Your task to perform on an android device: Open settings on Google Maps Image 0: 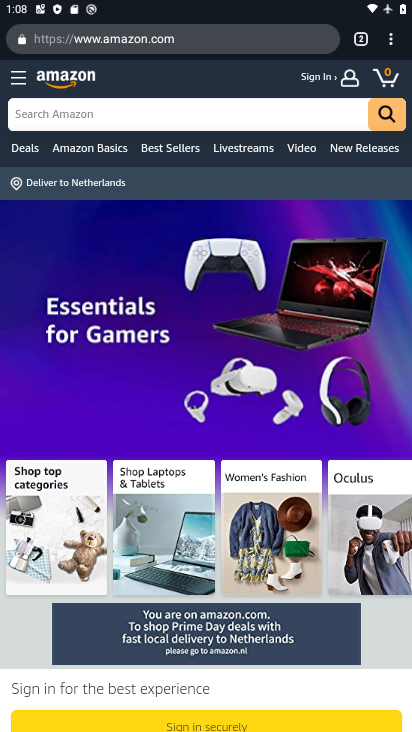
Step 0: press home button
Your task to perform on an android device: Open settings on Google Maps Image 1: 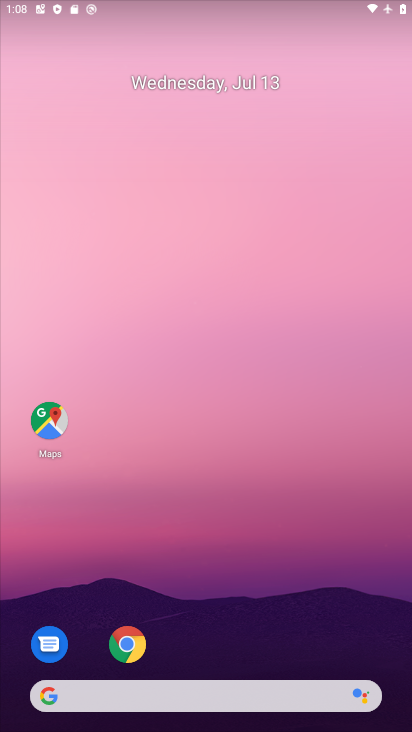
Step 1: drag from (301, 452) to (298, 125)
Your task to perform on an android device: Open settings on Google Maps Image 2: 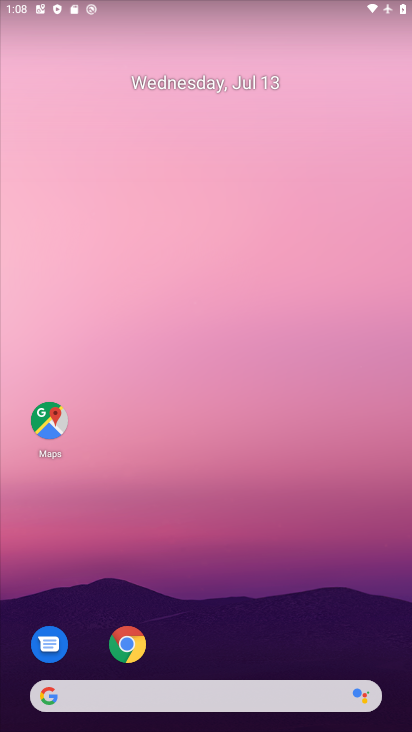
Step 2: drag from (295, 615) to (278, 54)
Your task to perform on an android device: Open settings on Google Maps Image 3: 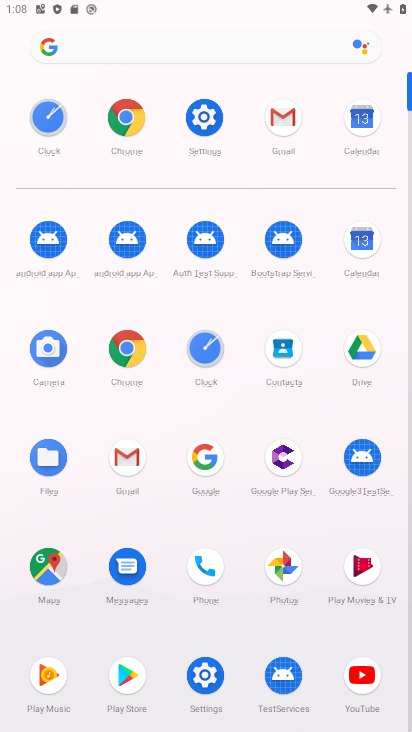
Step 3: click (52, 570)
Your task to perform on an android device: Open settings on Google Maps Image 4: 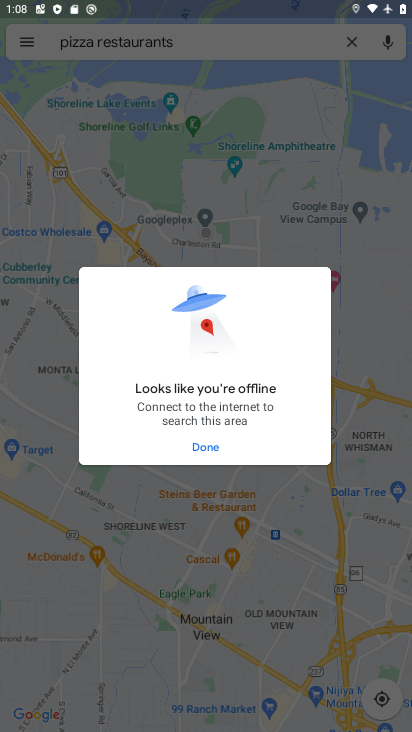
Step 4: click (201, 447)
Your task to perform on an android device: Open settings on Google Maps Image 5: 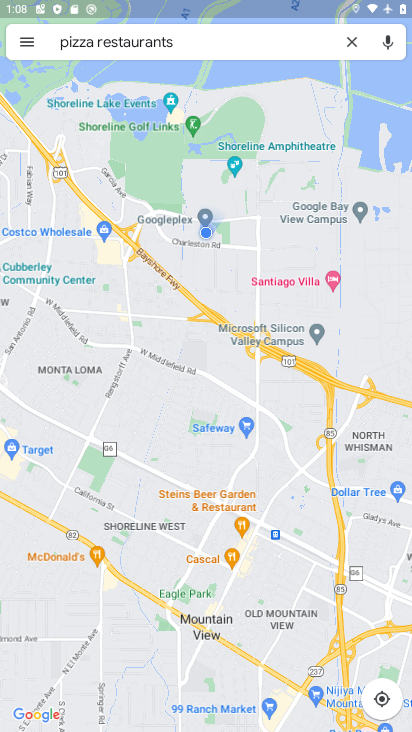
Step 5: click (35, 44)
Your task to perform on an android device: Open settings on Google Maps Image 6: 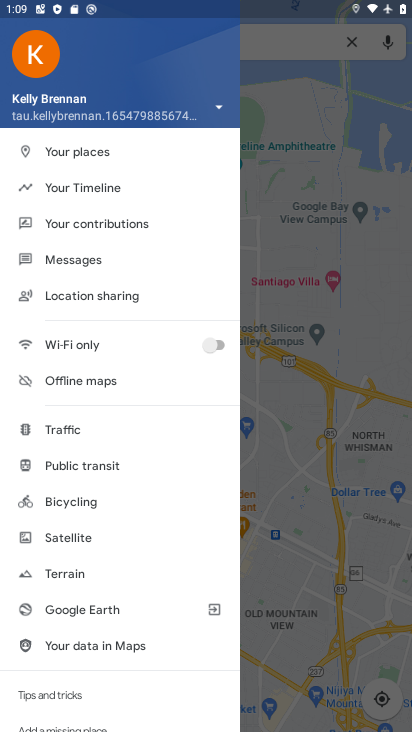
Step 6: drag from (98, 669) to (137, 238)
Your task to perform on an android device: Open settings on Google Maps Image 7: 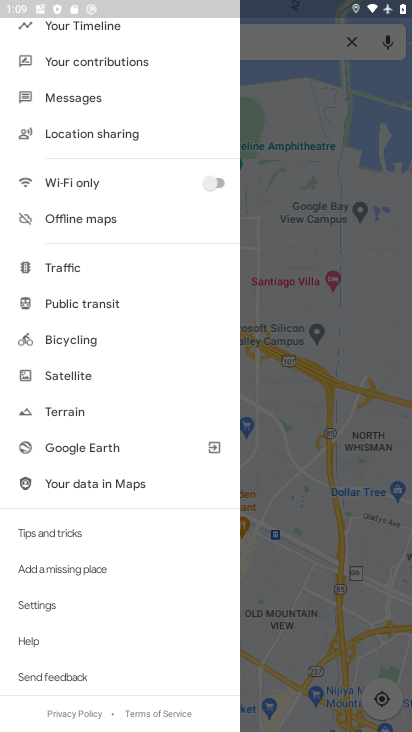
Step 7: click (48, 599)
Your task to perform on an android device: Open settings on Google Maps Image 8: 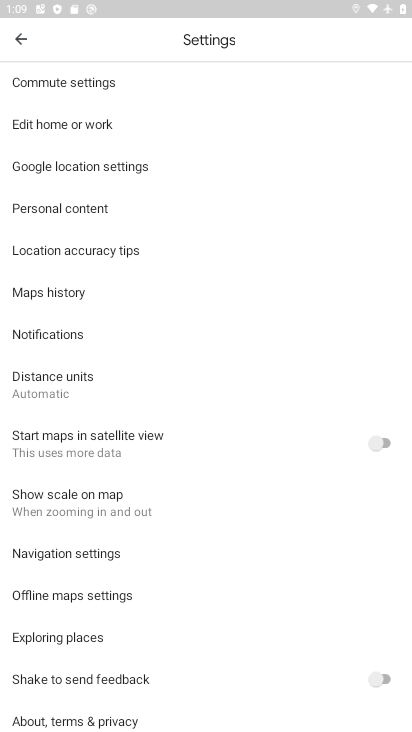
Step 8: task complete